Your task to perform on an android device: all mails in gmail Image 0: 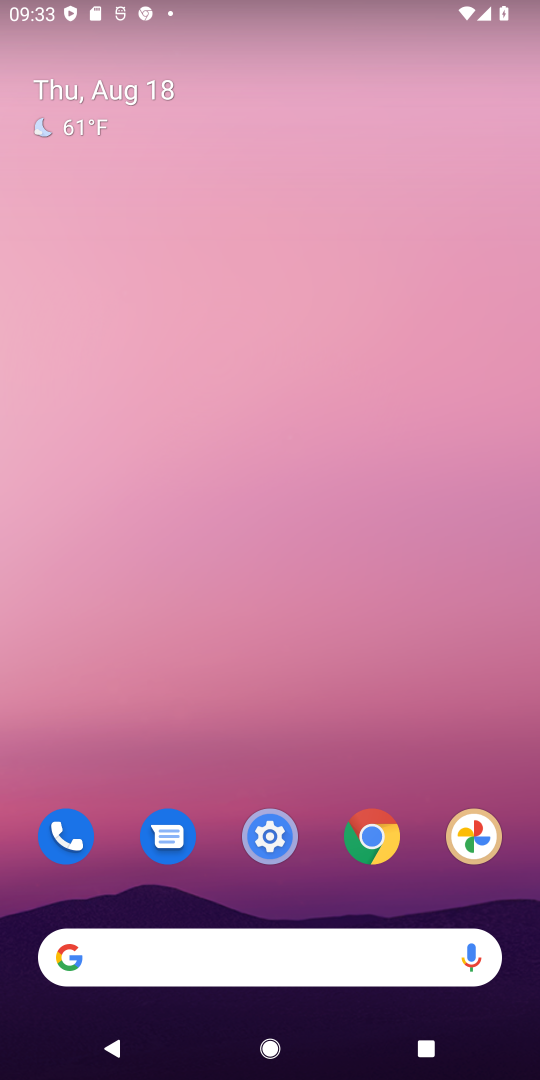
Step 0: drag from (342, 765) to (399, 205)
Your task to perform on an android device: all mails in gmail Image 1: 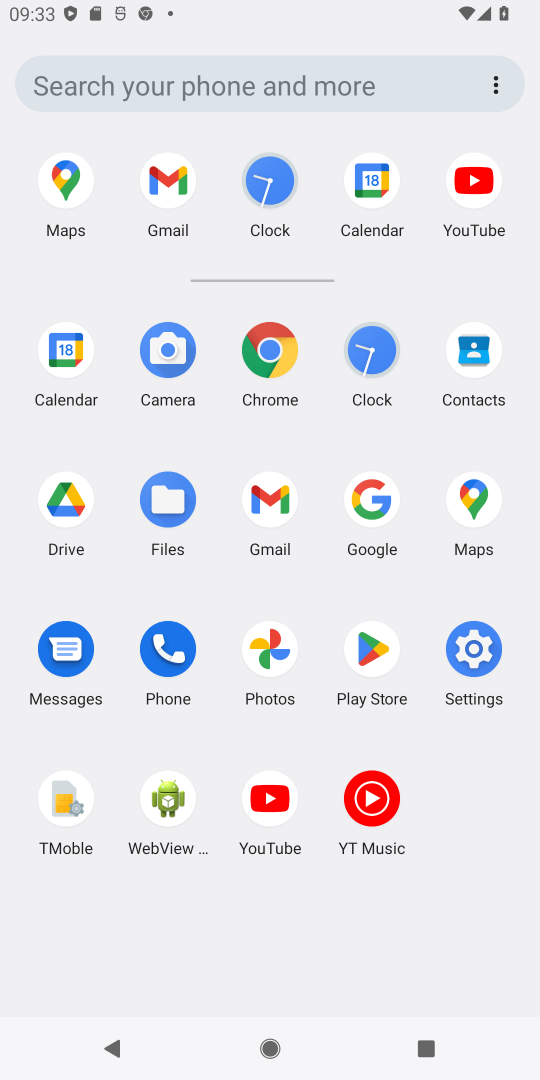
Step 1: click (271, 510)
Your task to perform on an android device: all mails in gmail Image 2: 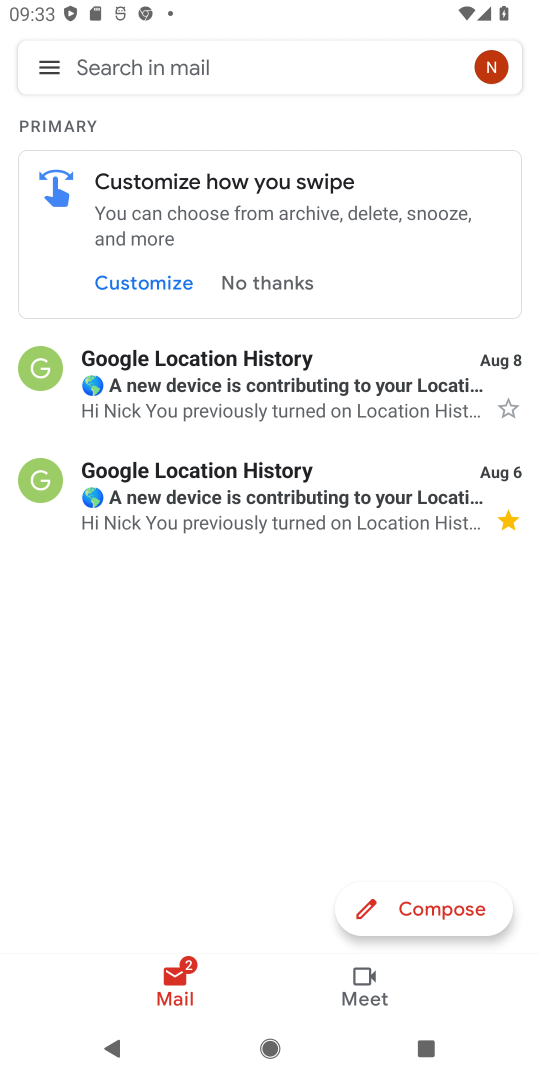
Step 2: click (54, 54)
Your task to perform on an android device: all mails in gmail Image 3: 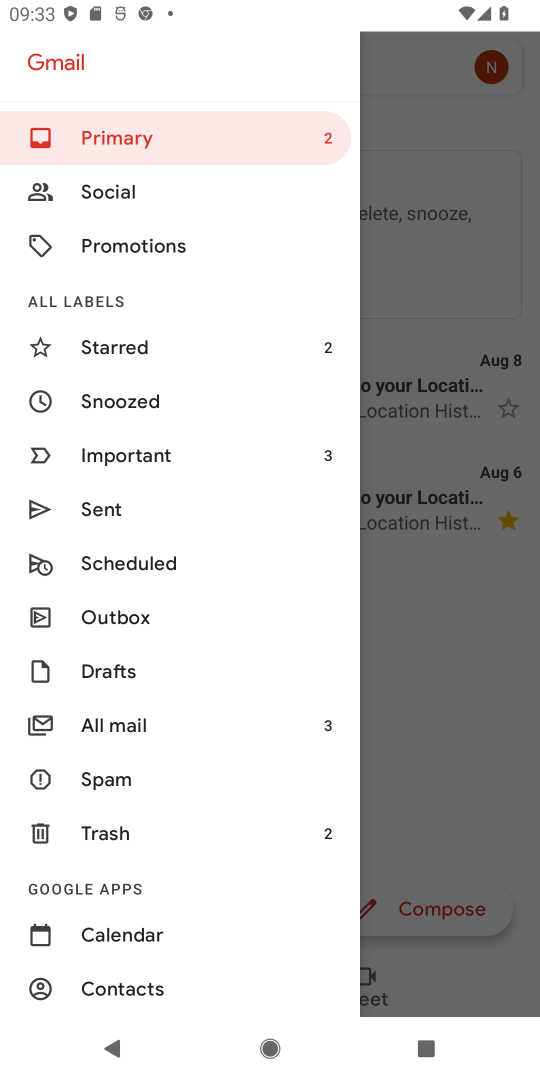
Step 3: click (141, 728)
Your task to perform on an android device: all mails in gmail Image 4: 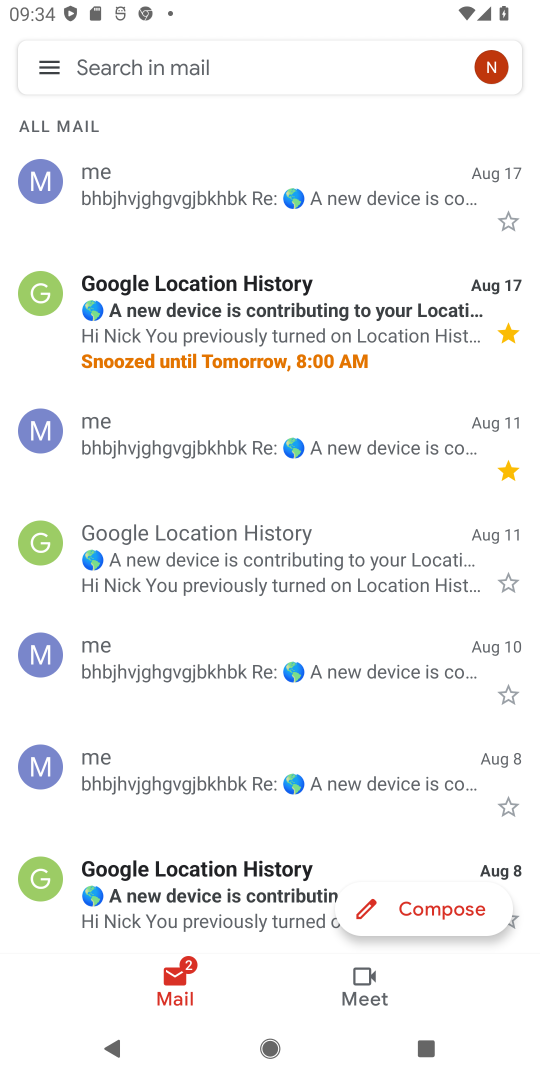
Step 4: task complete